Your task to perform on an android device: Open sound settings Image 0: 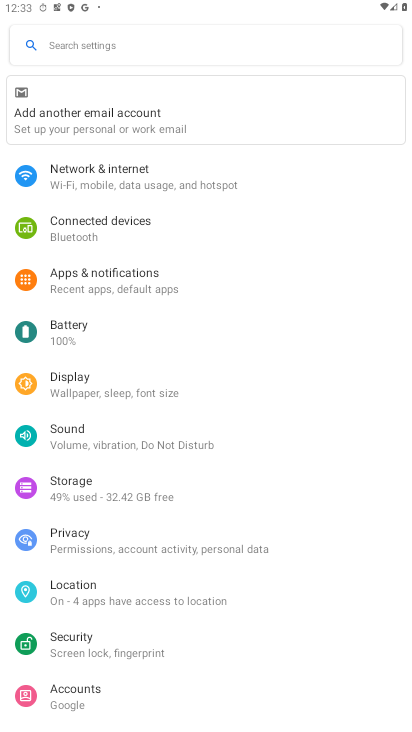
Step 0: click (98, 441)
Your task to perform on an android device: Open sound settings Image 1: 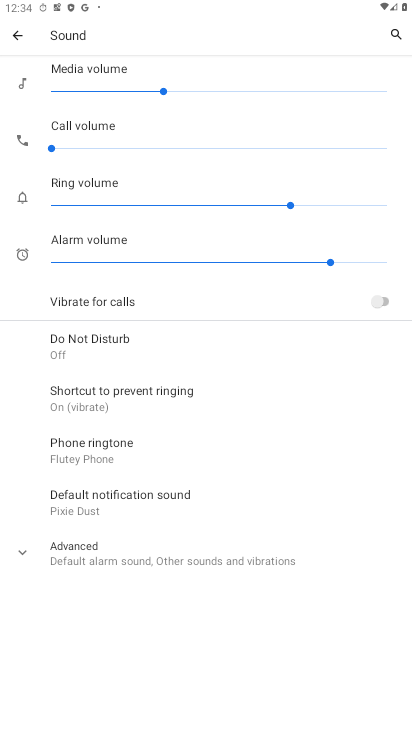
Step 1: task complete